Your task to perform on an android device: Open the phone app and click the voicemail tab. Image 0: 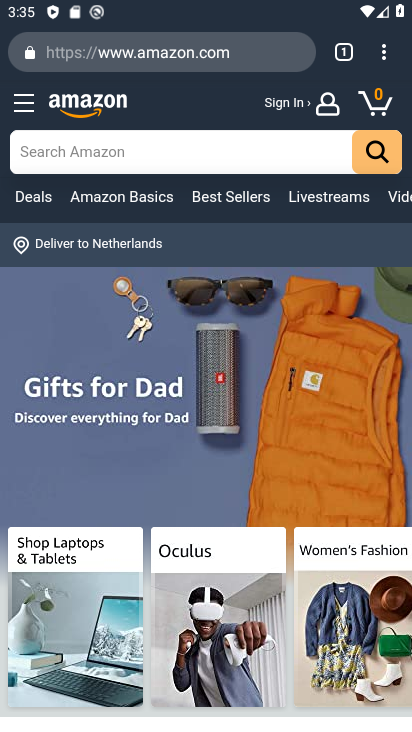
Step 0: press home button
Your task to perform on an android device: Open the phone app and click the voicemail tab. Image 1: 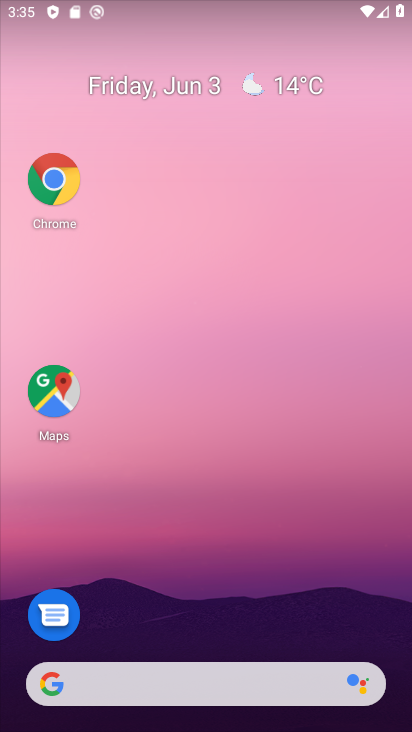
Step 1: drag from (114, 728) to (122, 42)
Your task to perform on an android device: Open the phone app and click the voicemail tab. Image 2: 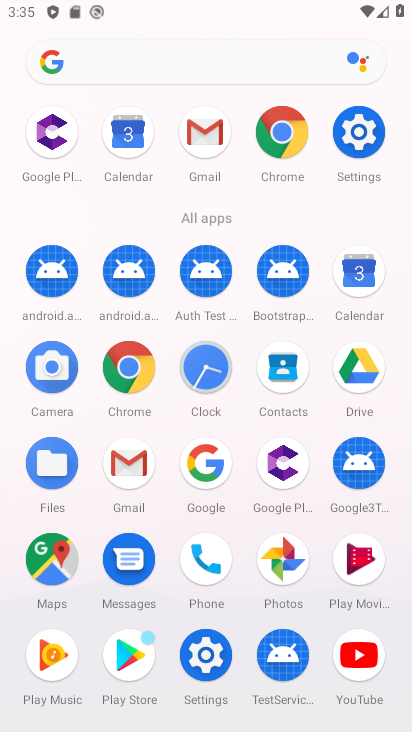
Step 2: click (203, 574)
Your task to perform on an android device: Open the phone app and click the voicemail tab. Image 3: 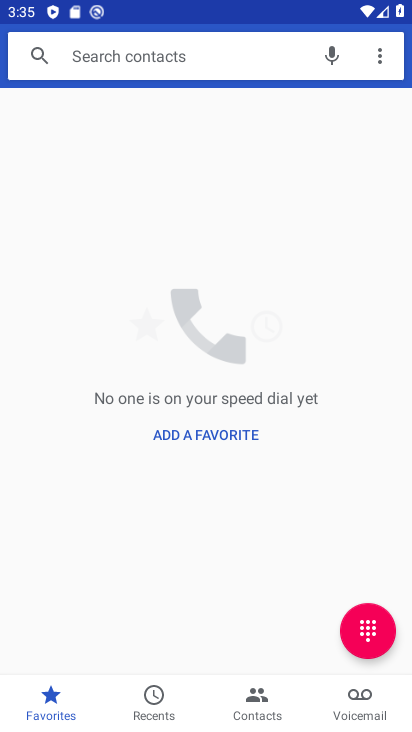
Step 3: click (367, 727)
Your task to perform on an android device: Open the phone app and click the voicemail tab. Image 4: 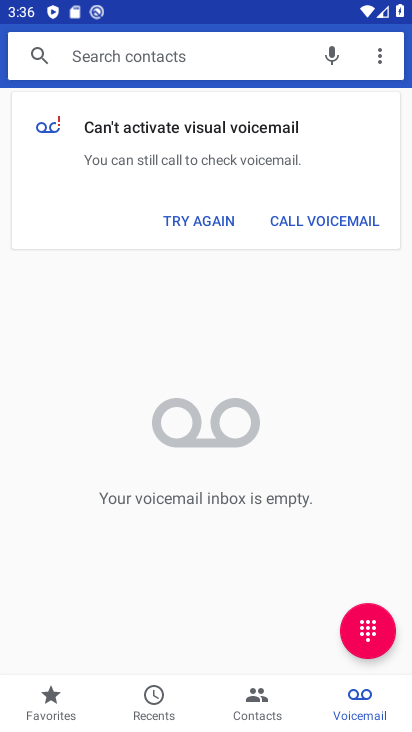
Step 4: task complete